Your task to perform on an android device: toggle improve location accuracy Image 0: 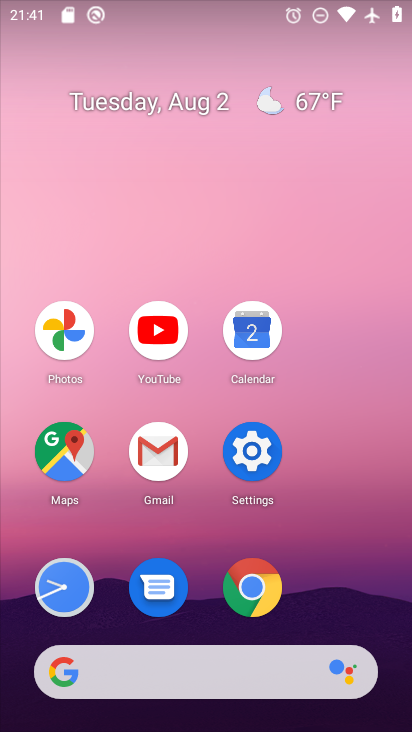
Step 0: click (254, 450)
Your task to perform on an android device: toggle improve location accuracy Image 1: 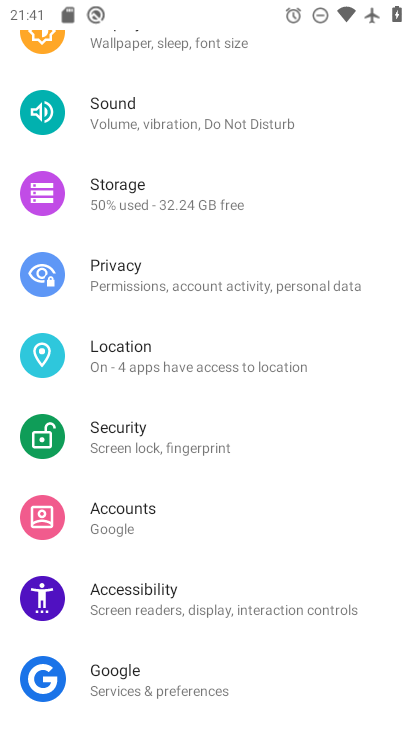
Step 1: click (136, 351)
Your task to perform on an android device: toggle improve location accuracy Image 2: 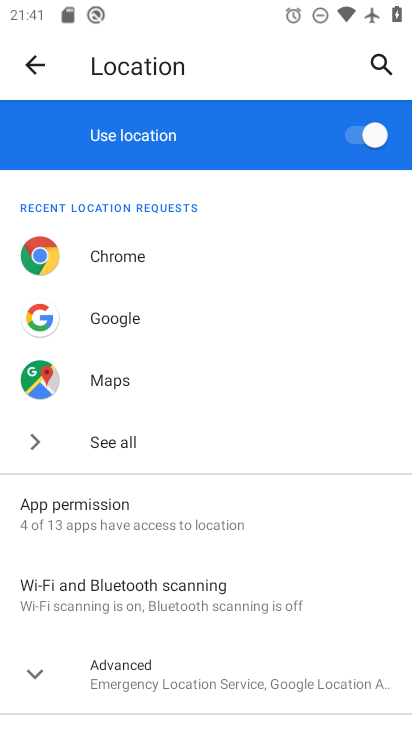
Step 2: click (58, 673)
Your task to perform on an android device: toggle improve location accuracy Image 3: 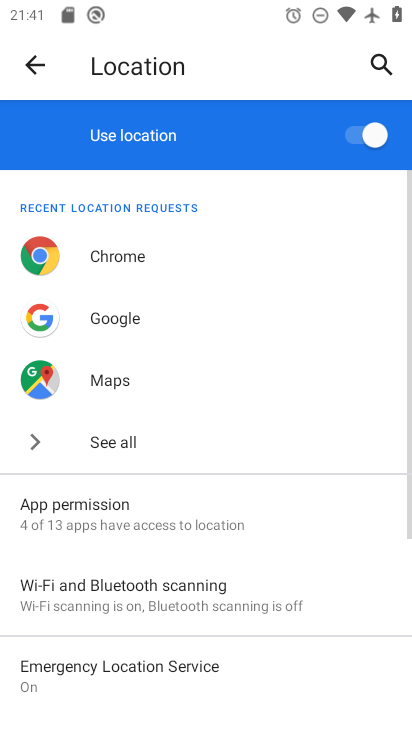
Step 3: drag from (221, 623) to (196, 264)
Your task to perform on an android device: toggle improve location accuracy Image 4: 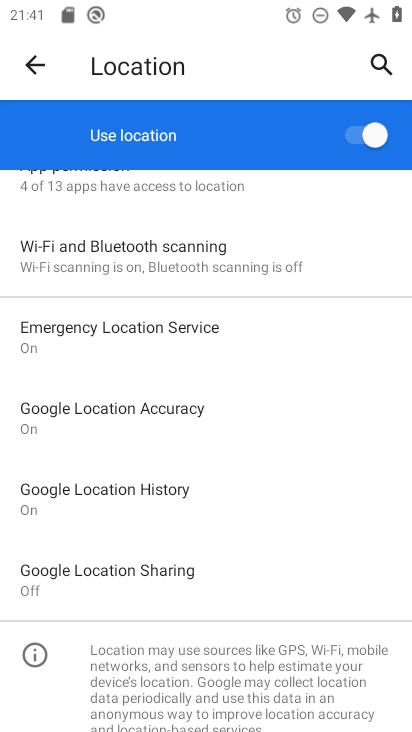
Step 4: click (157, 405)
Your task to perform on an android device: toggle improve location accuracy Image 5: 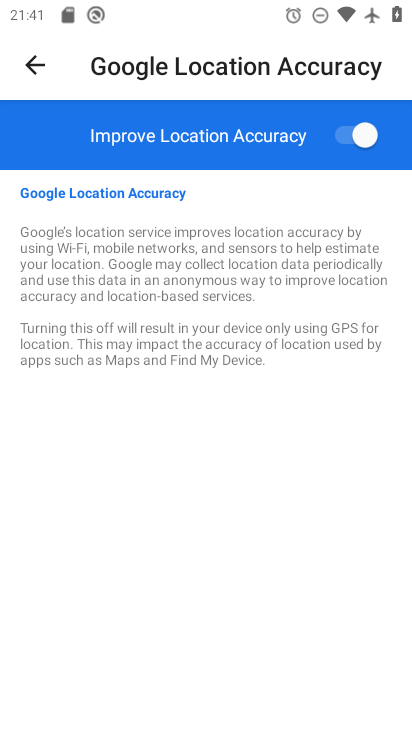
Step 5: click (371, 130)
Your task to perform on an android device: toggle improve location accuracy Image 6: 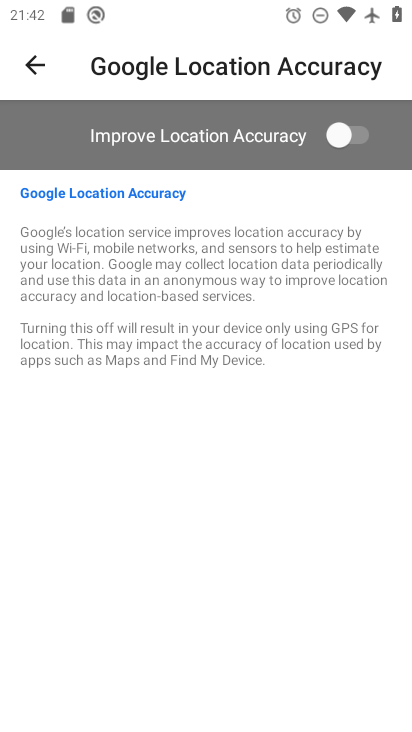
Step 6: task complete